Your task to perform on an android device: turn notification dots on Image 0: 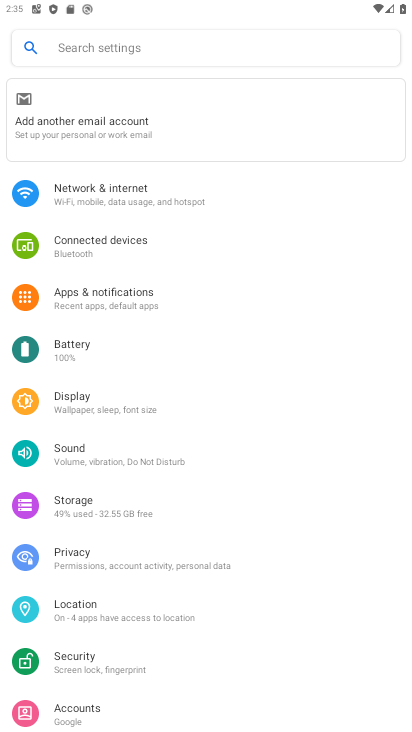
Step 0: press home button
Your task to perform on an android device: turn notification dots on Image 1: 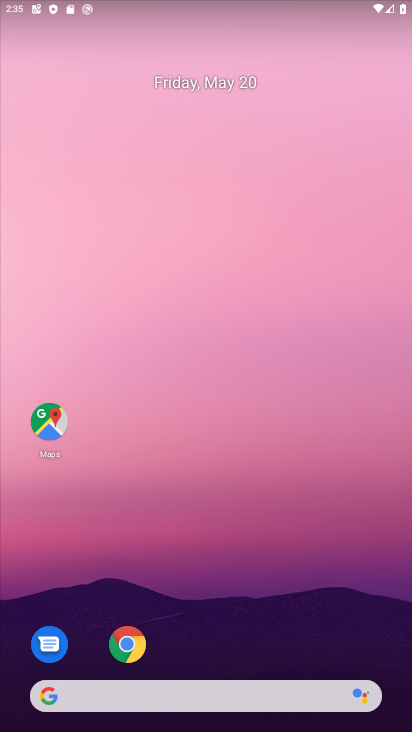
Step 1: drag from (277, 600) to (180, 140)
Your task to perform on an android device: turn notification dots on Image 2: 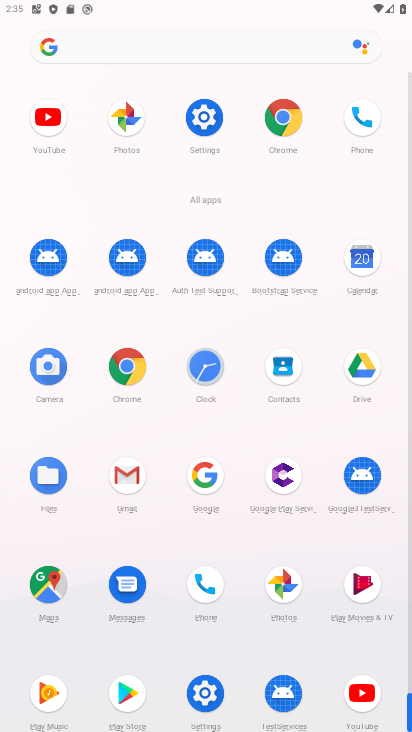
Step 2: click (213, 701)
Your task to perform on an android device: turn notification dots on Image 3: 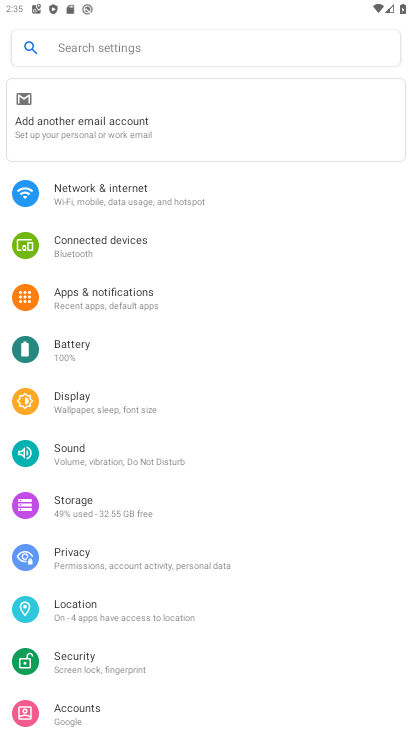
Step 3: click (125, 289)
Your task to perform on an android device: turn notification dots on Image 4: 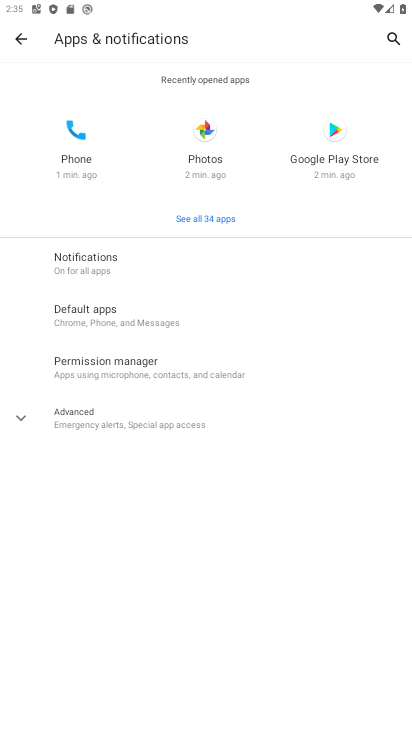
Step 4: click (135, 254)
Your task to perform on an android device: turn notification dots on Image 5: 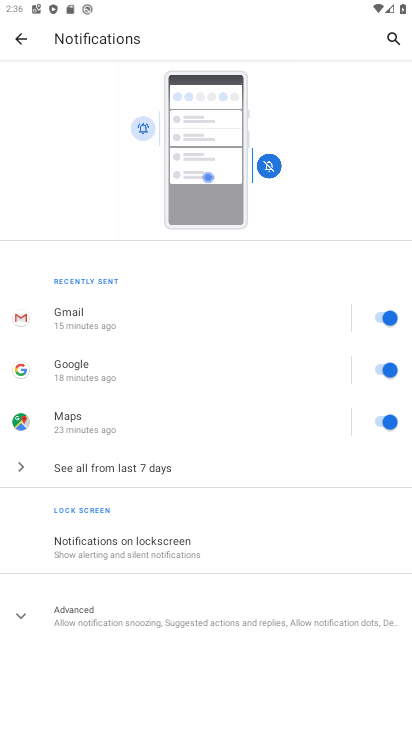
Step 5: click (151, 608)
Your task to perform on an android device: turn notification dots on Image 6: 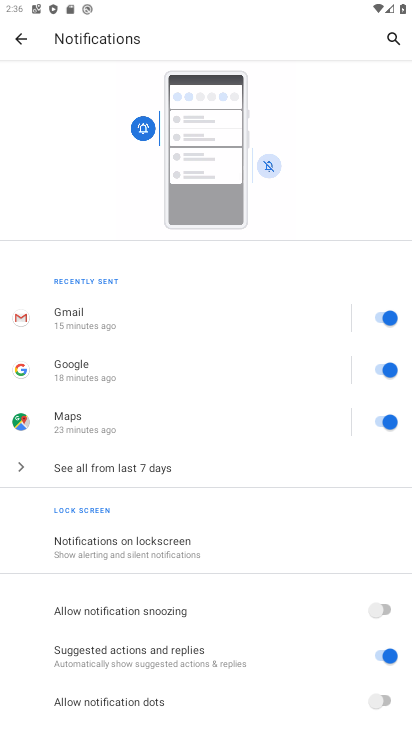
Step 6: click (378, 700)
Your task to perform on an android device: turn notification dots on Image 7: 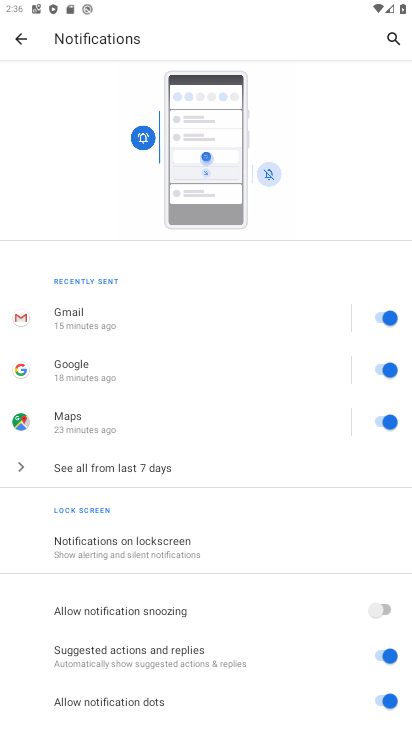
Step 7: task complete